Your task to perform on an android device: Search for pizza restaurants on Maps Image 0: 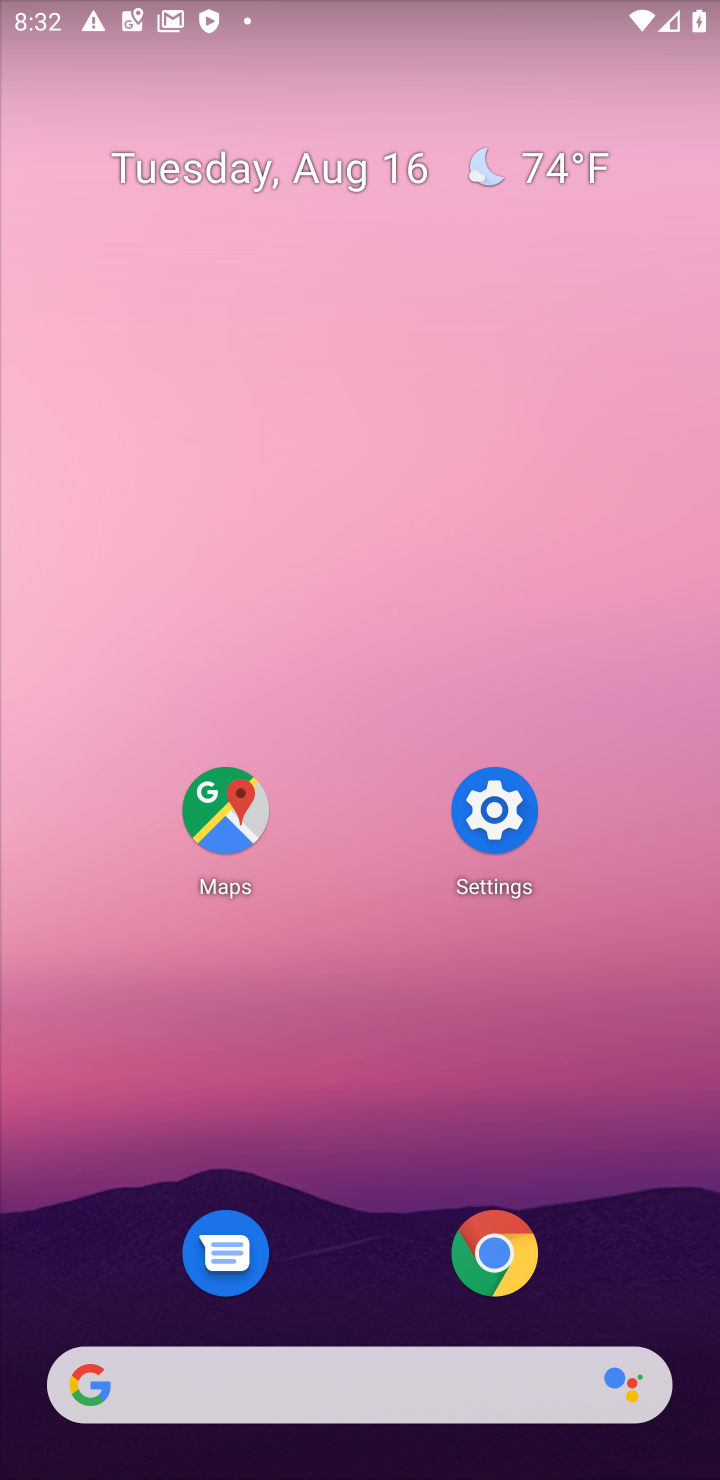
Step 0: press home button
Your task to perform on an android device: Search for pizza restaurants on Maps Image 1: 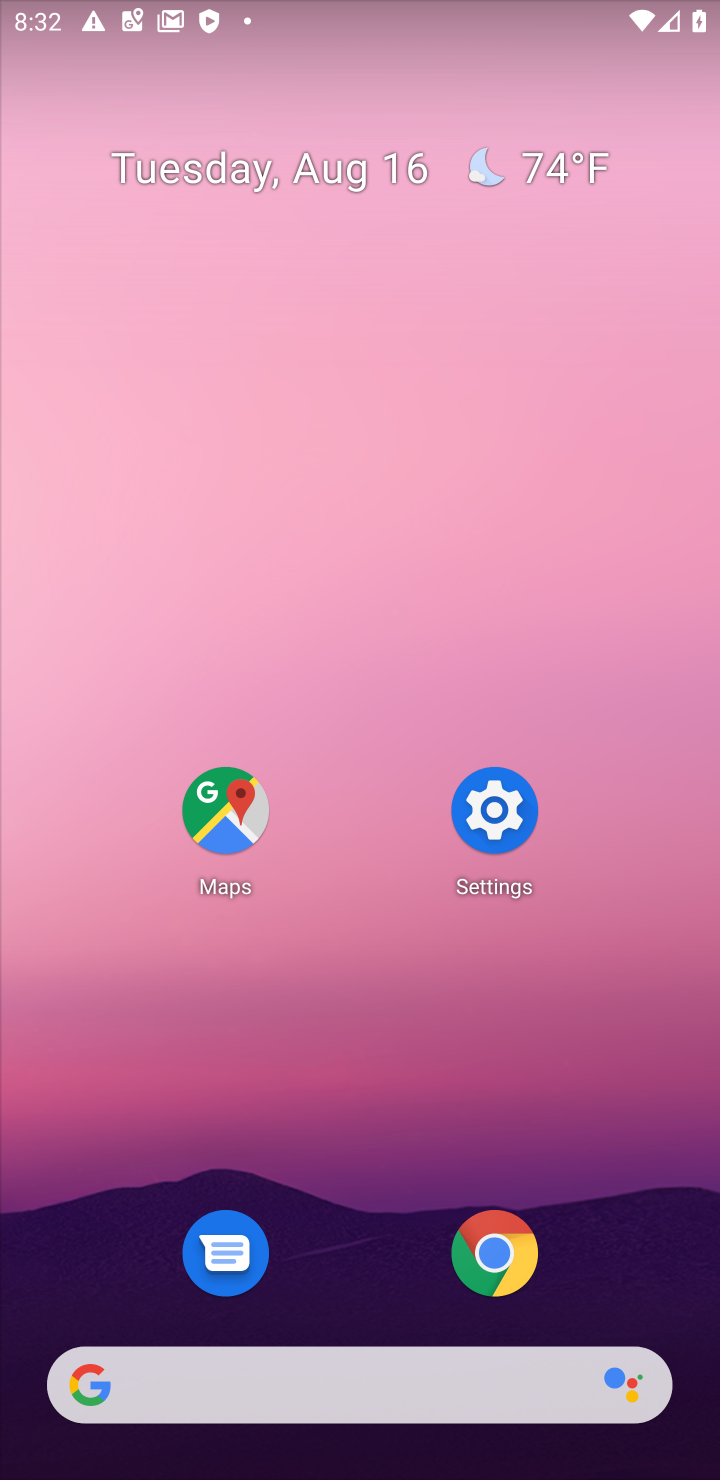
Step 1: click (216, 830)
Your task to perform on an android device: Search for pizza restaurants on Maps Image 2: 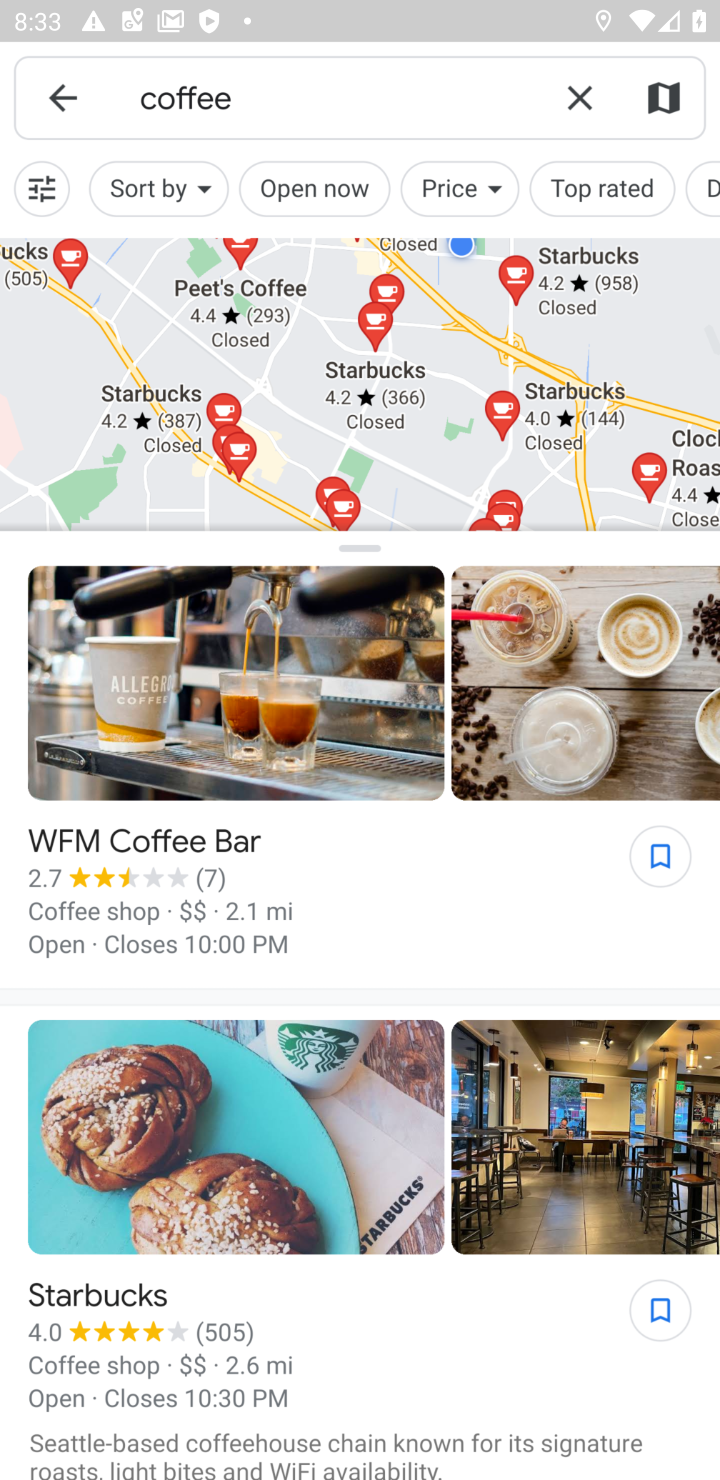
Step 2: click (572, 82)
Your task to perform on an android device: Search for pizza restaurants on Maps Image 3: 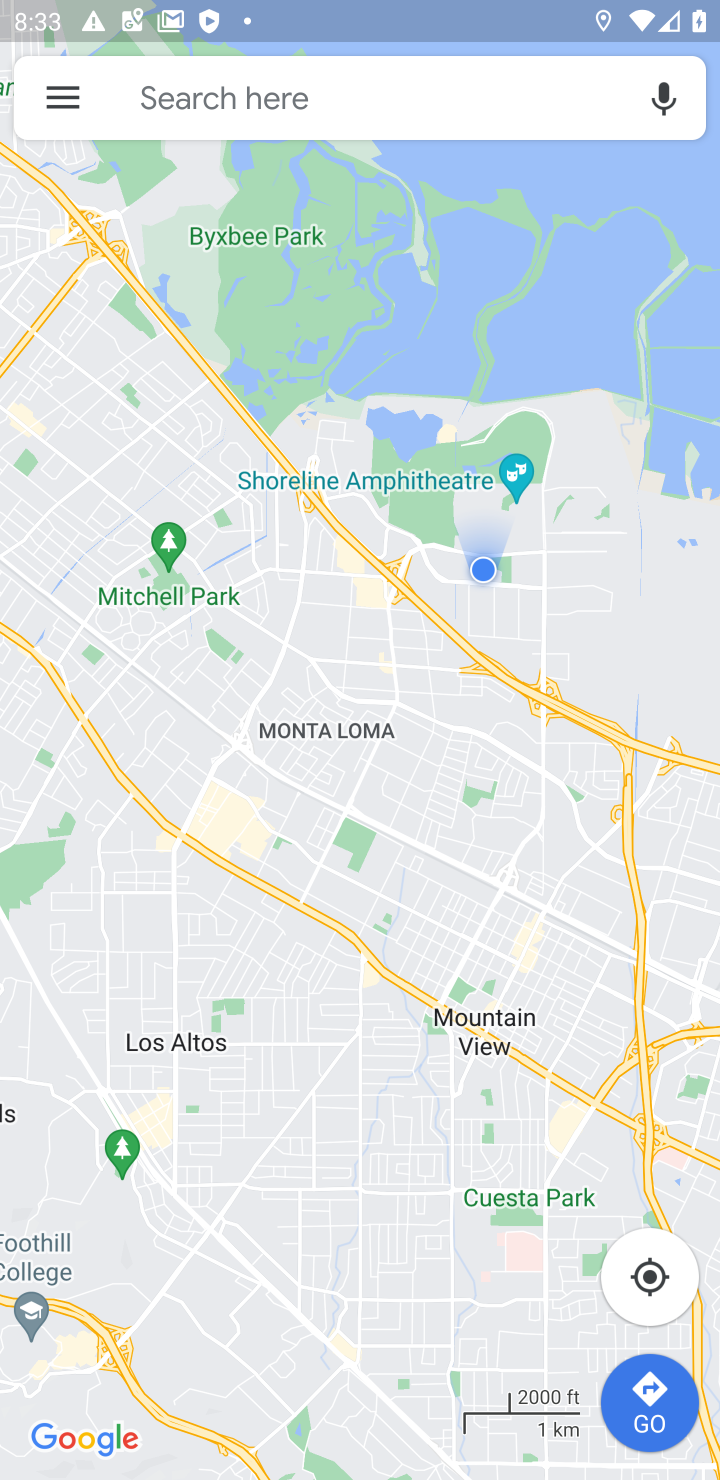
Step 3: click (286, 92)
Your task to perform on an android device: Search for pizza restaurants on Maps Image 4: 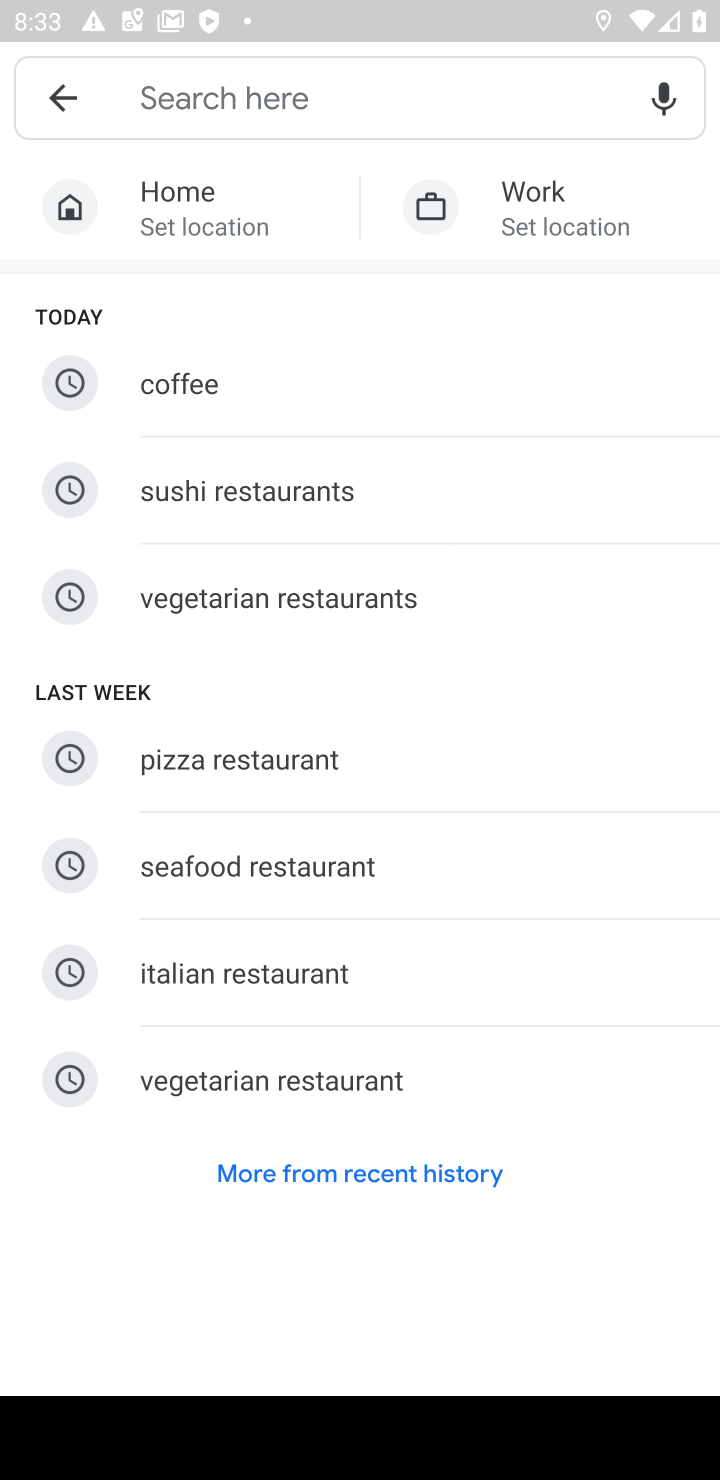
Step 4: click (192, 757)
Your task to perform on an android device: Search for pizza restaurants on Maps Image 5: 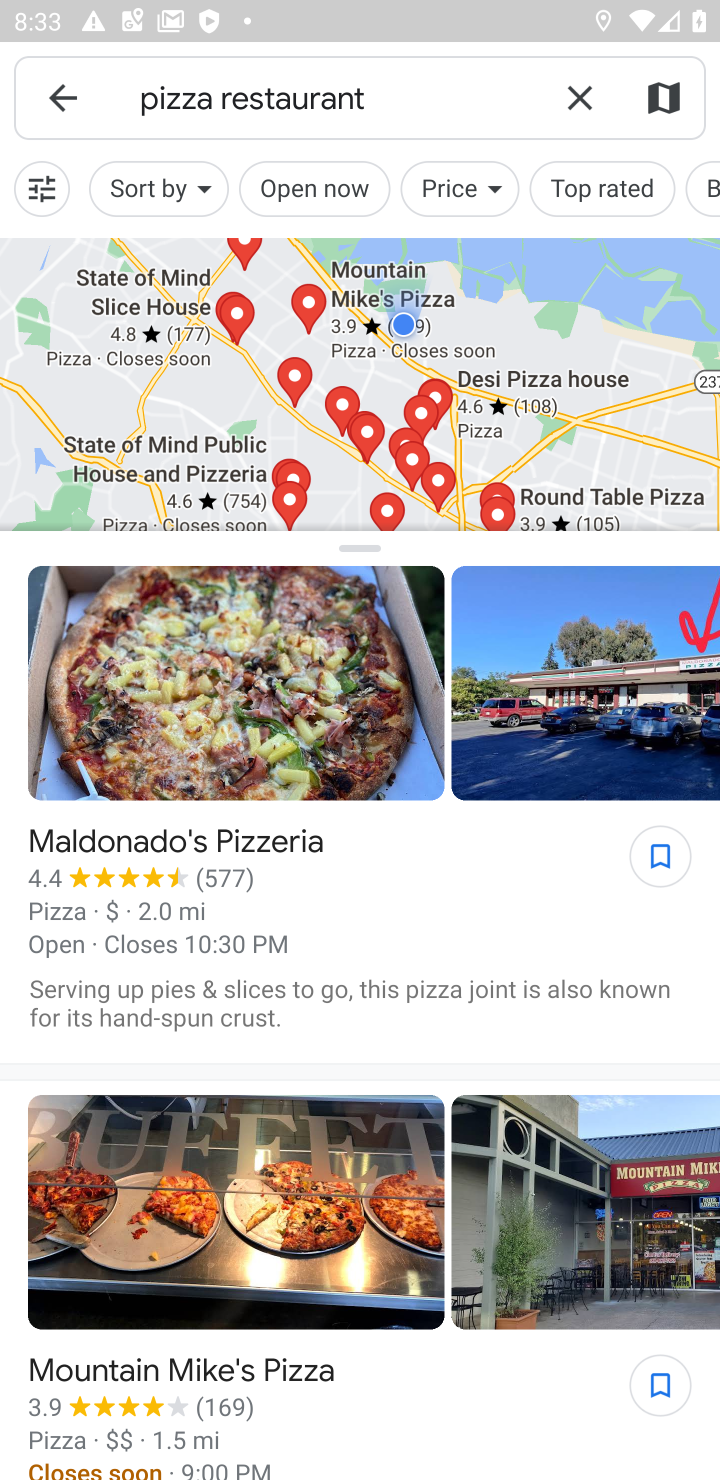
Step 5: task complete